Your task to perform on an android device: Go to privacy settings Image 0: 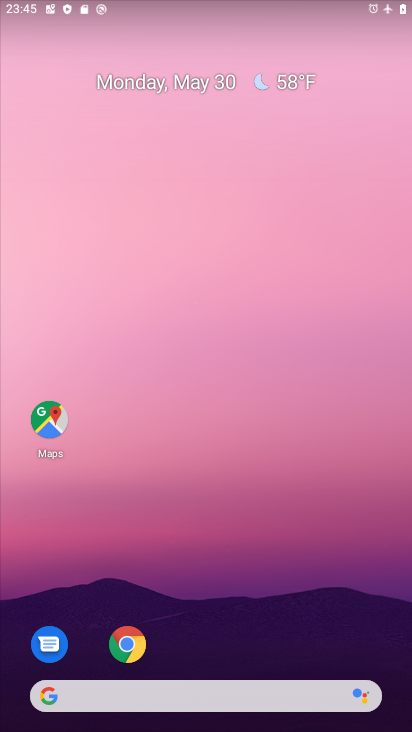
Step 0: drag from (371, 641) to (368, 228)
Your task to perform on an android device: Go to privacy settings Image 1: 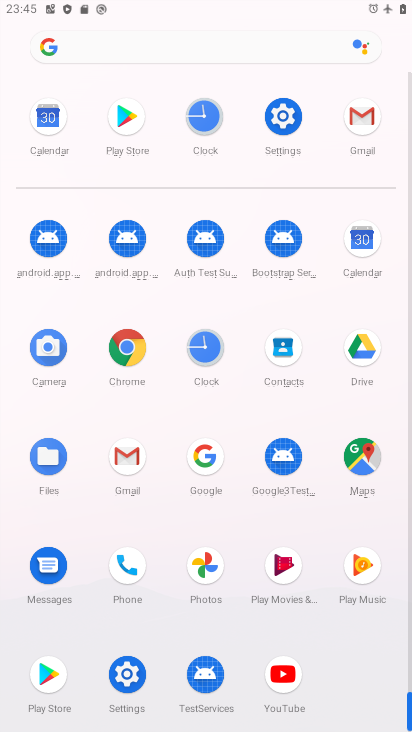
Step 1: click (129, 673)
Your task to perform on an android device: Go to privacy settings Image 2: 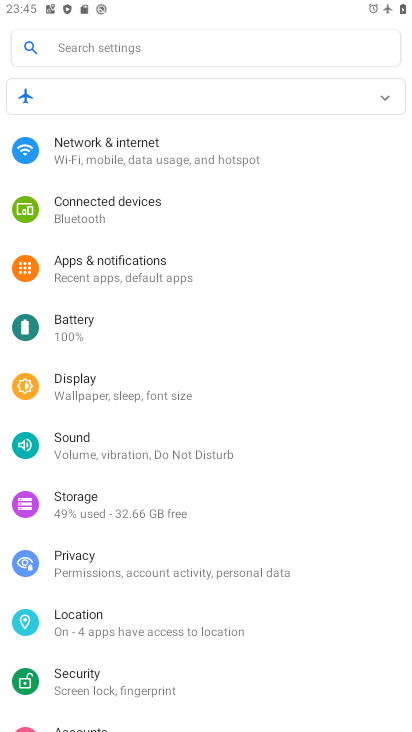
Step 2: click (66, 556)
Your task to perform on an android device: Go to privacy settings Image 3: 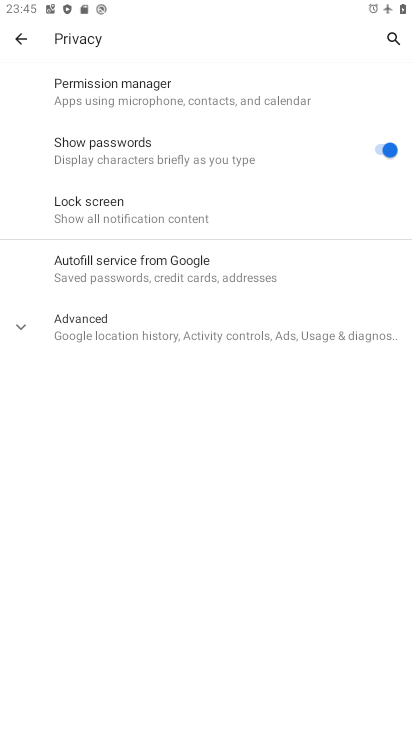
Step 3: click (27, 326)
Your task to perform on an android device: Go to privacy settings Image 4: 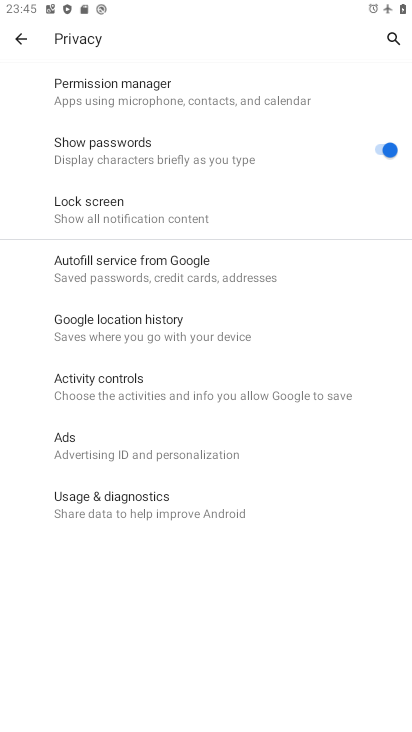
Step 4: task complete